Your task to perform on an android device: turn notification dots on Image 0: 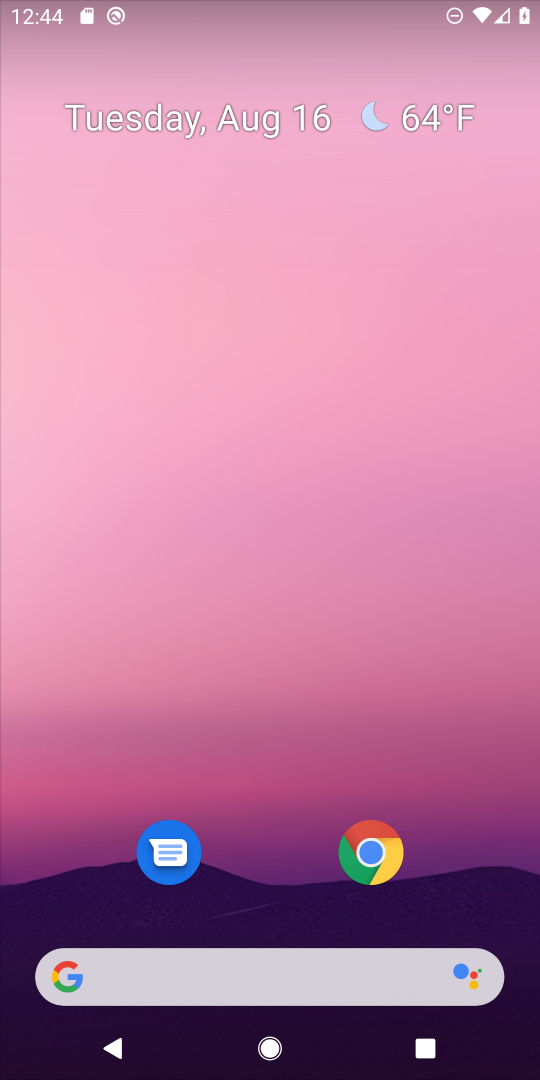
Step 0: drag from (233, 875) to (378, 28)
Your task to perform on an android device: turn notification dots on Image 1: 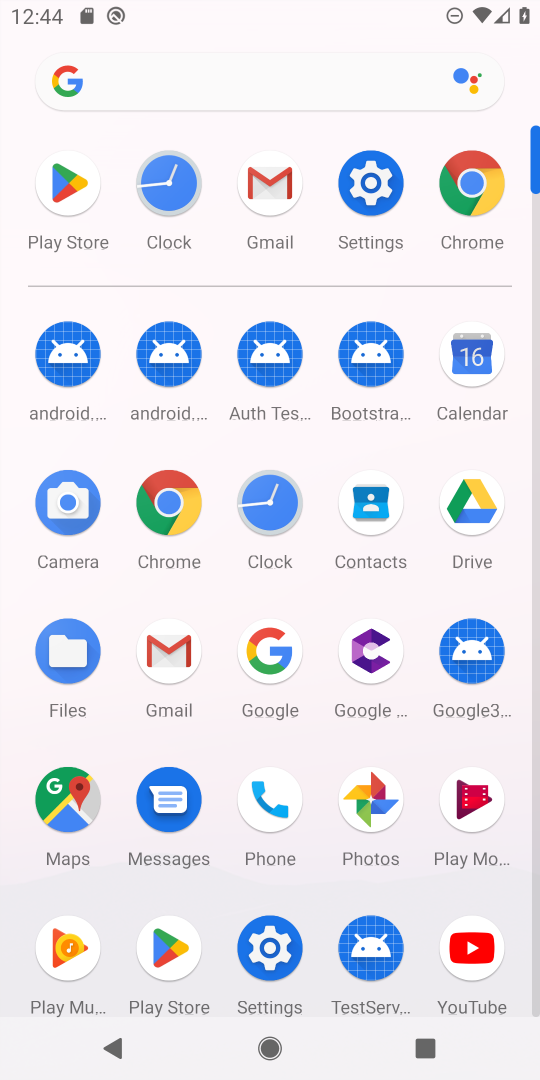
Step 1: click (370, 184)
Your task to perform on an android device: turn notification dots on Image 2: 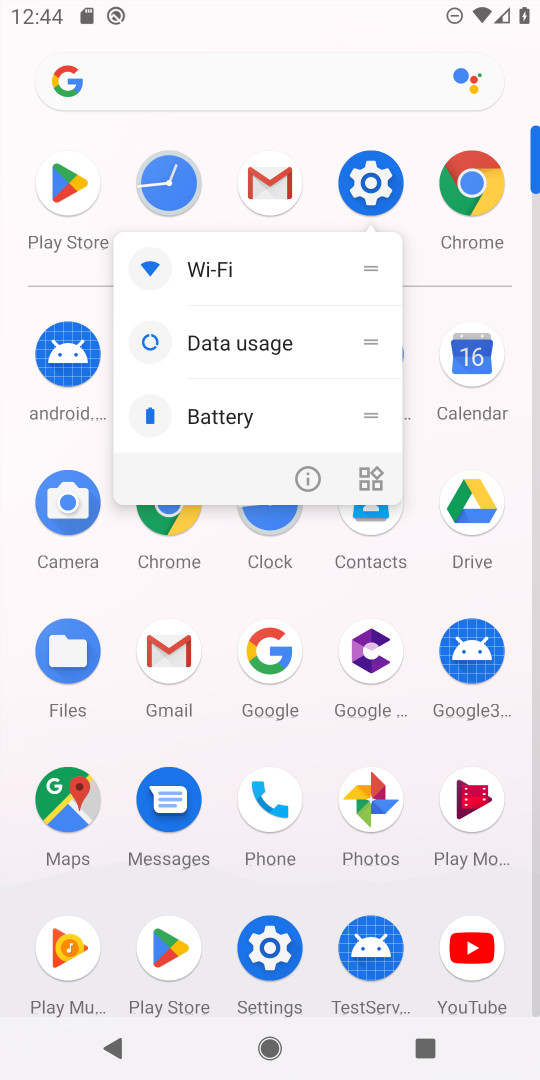
Step 2: click (370, 184)
Your task to perform on an android device: turn notification dots on Image 3: 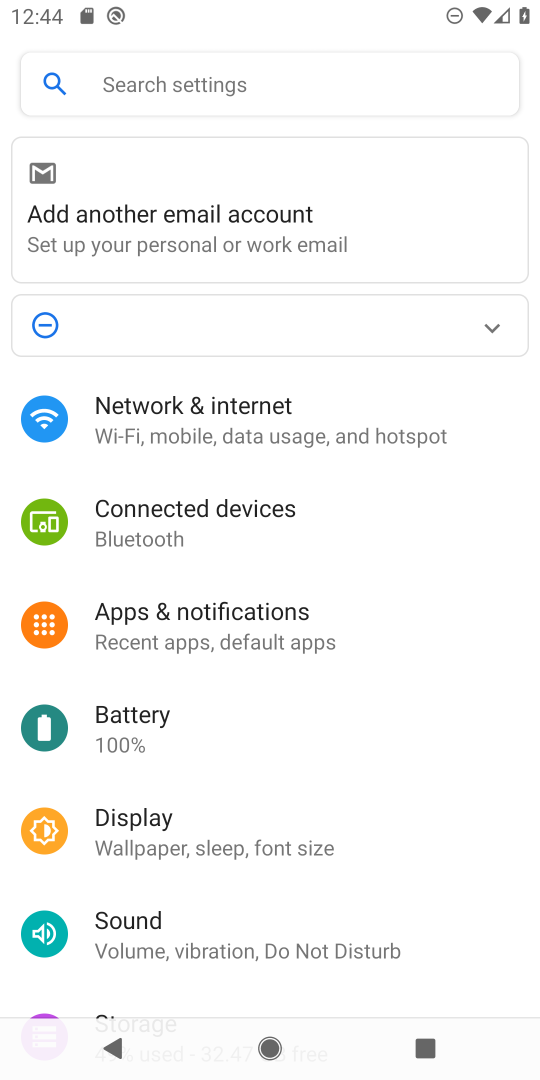
Step 3: click (203, 627)
Your task to perform on an android device: turn notification dots on Image 4: 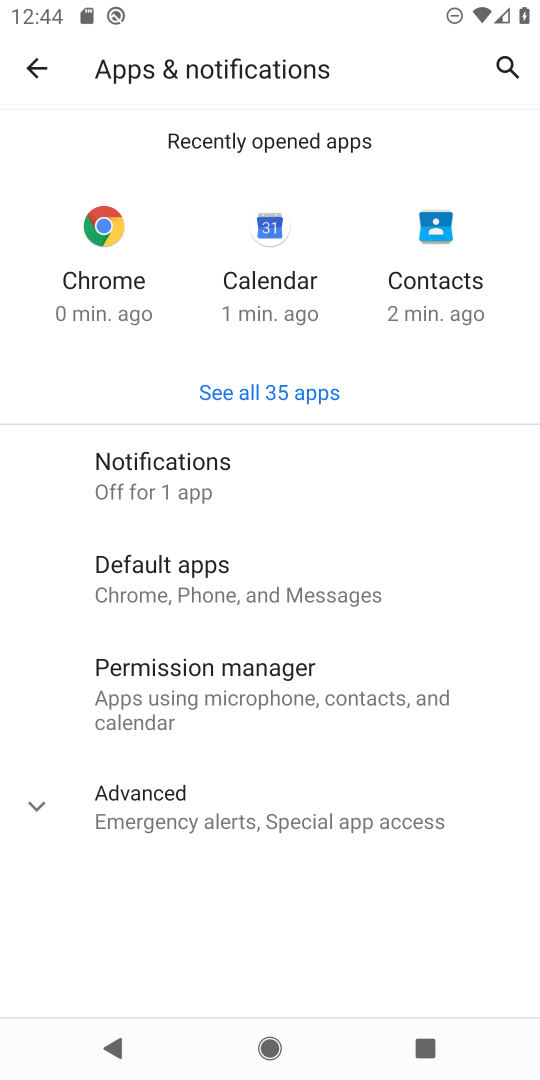
Step 4: click (234, 476)
Your task to perform on an android device: turn notification dots on Image 5: 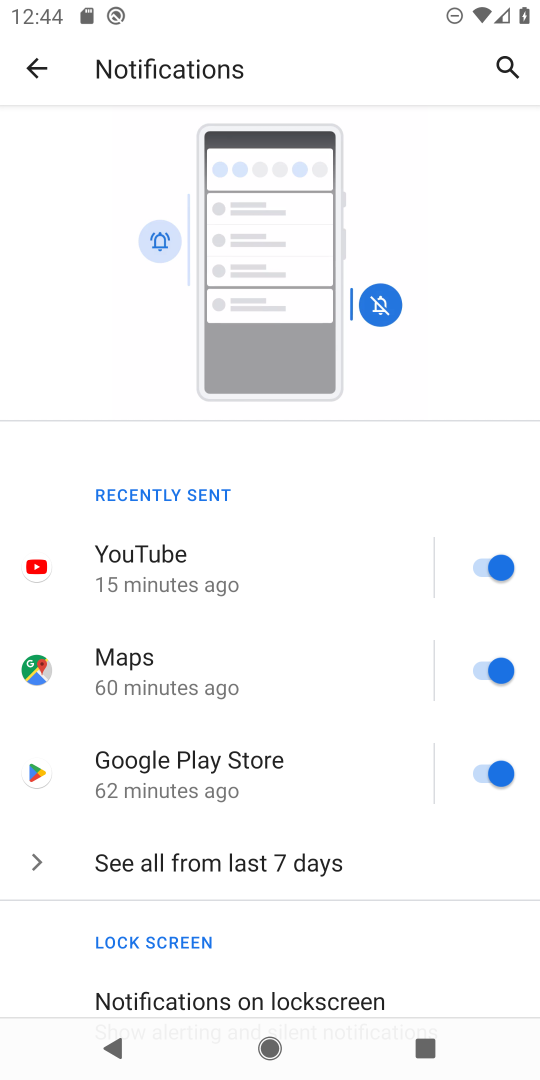
Step 5: drag from (213, 956) to (303, 120)
Your task to perform on an android device: turn notification dots on Image 6: 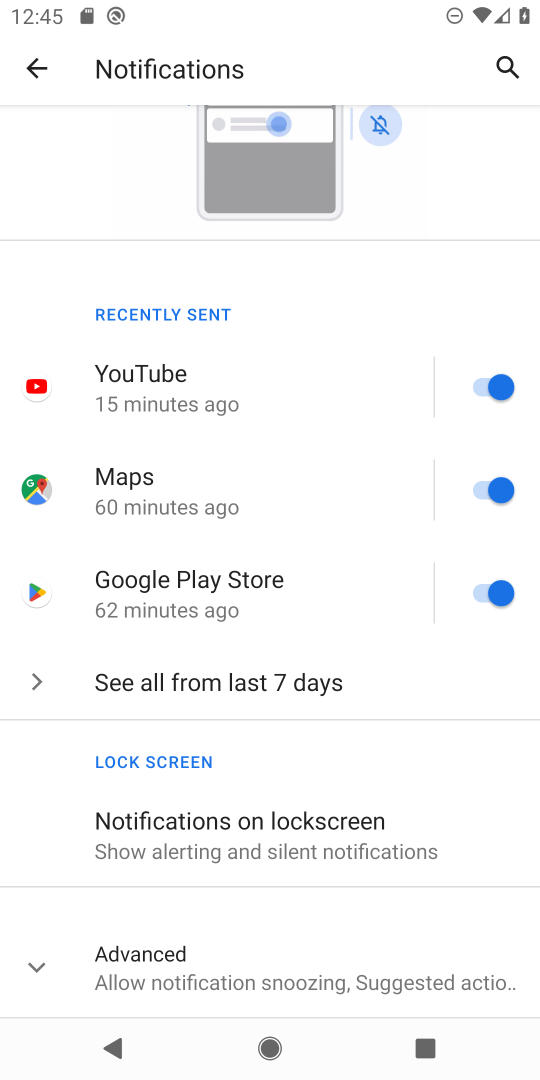
Step 6: click (300, 946)
Your task to perform on an android device: turn notification dots on Image 7: 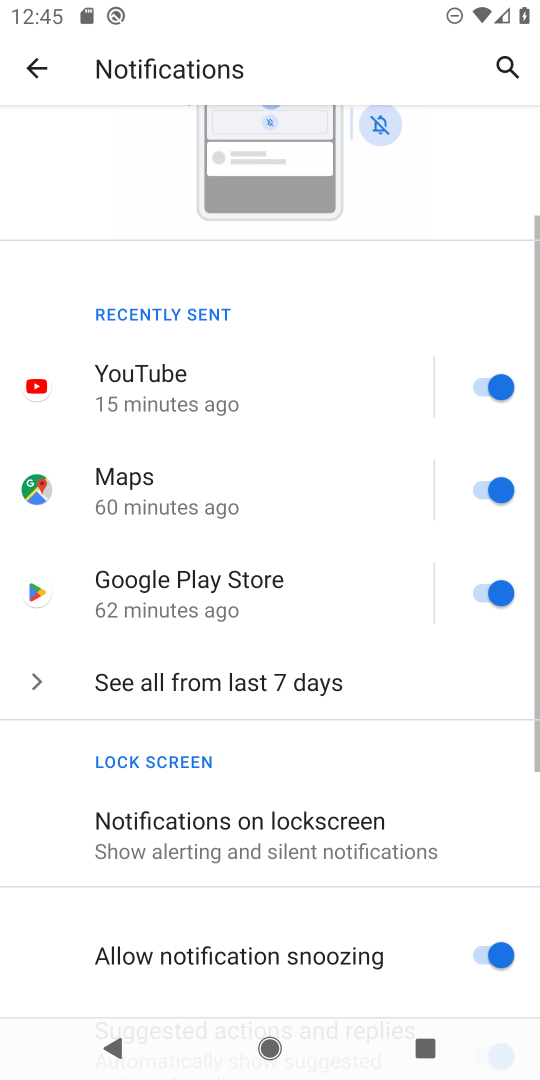
Step 7: task complete